Your task to perform on an android device: Go to internet settings Image 0: 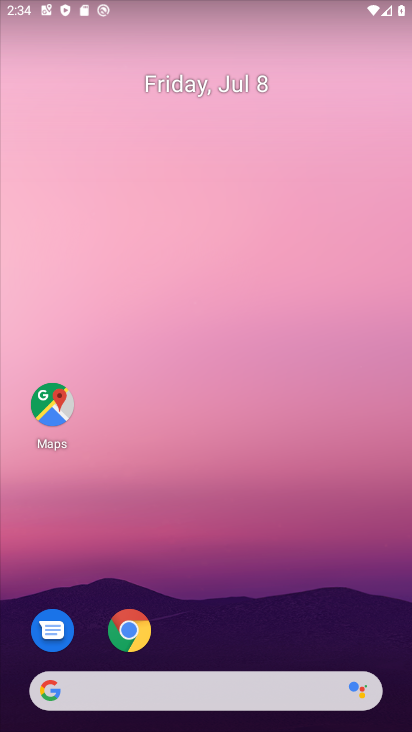
Step 0: drag from (329, 602) to (140, 34)
Your task to perform on an android device: Go to internet settings Image 1: 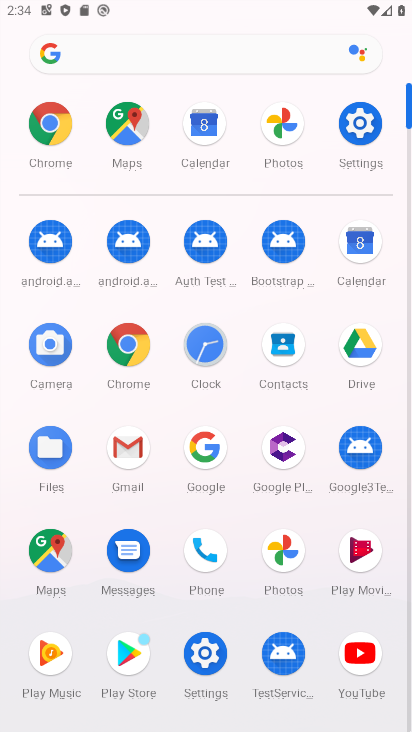
Step 1: click (371, 125)
Your task to perform on an android device: Go to internet settings Image 2: 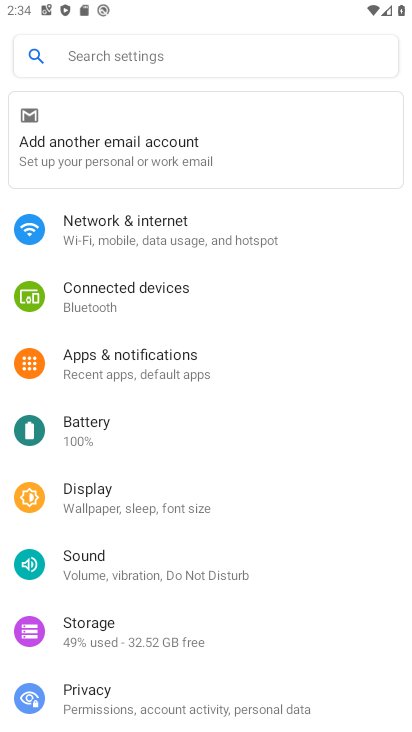
Step 2: click (183, 229)
Your task to perform on an android device: Go to internet settings Image 3: 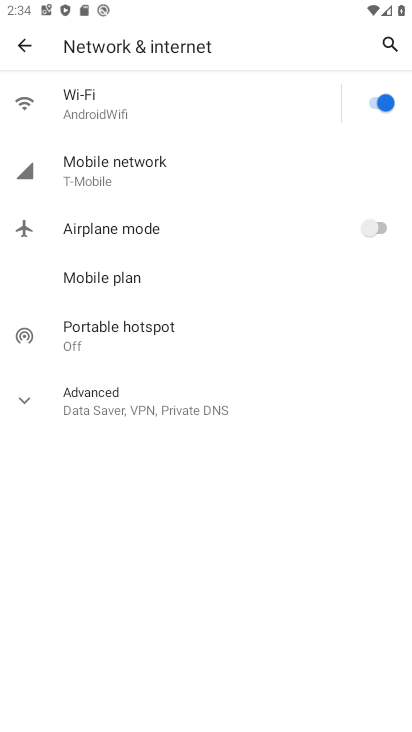
Step 3: task complete